Your task to perform on an android device: allow notifications from all sites in the chrome app Image 0: 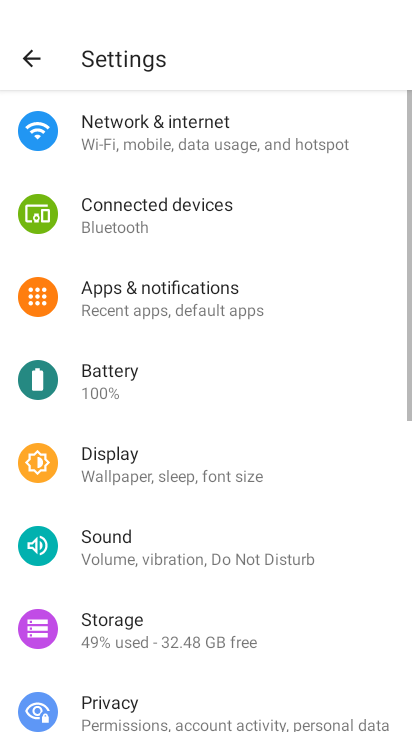
Step 0: press home button
Your task to perform on an android device: allow notifications from all sites in the chrome app Image 1: 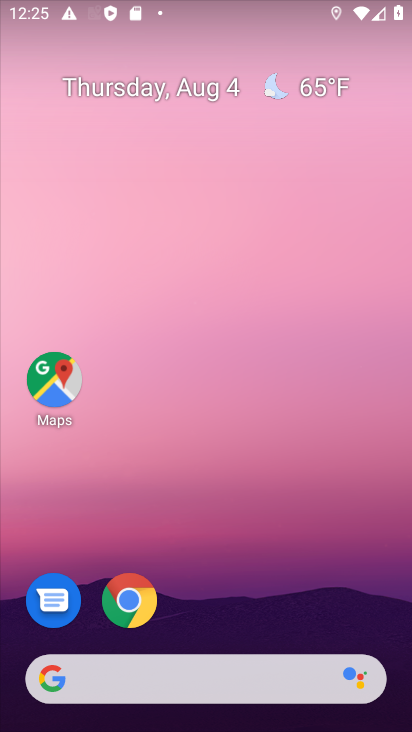
Step 1: drag from (271, 652) to (279, 256)
Your task to perform on an android device: allow notifications from all sites in the chrome app Image 2: 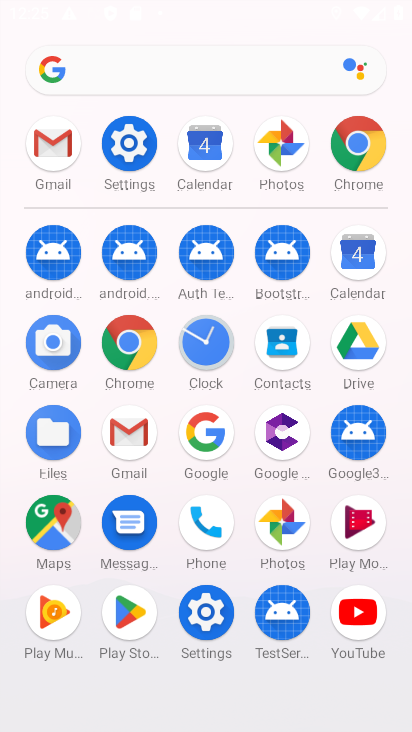
Step 2: click (122, 357)
Your task to perform on an android device: allow notifications from all sites in the chrome app Image 3: 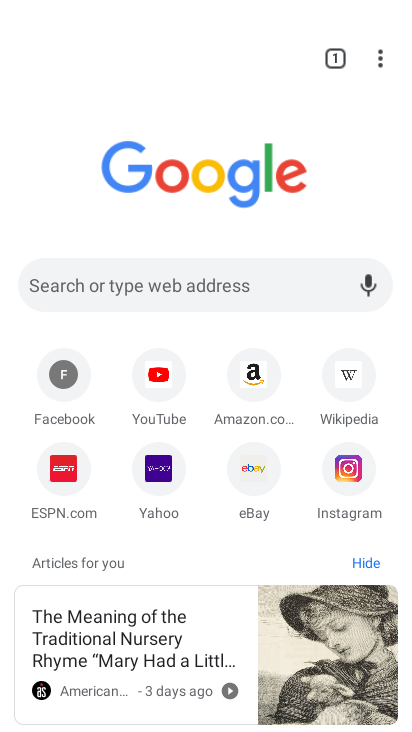
Step 3: click (385, 50)
Your task to perform on an android device: allow notifications from all sites in the chrome app Image 4: 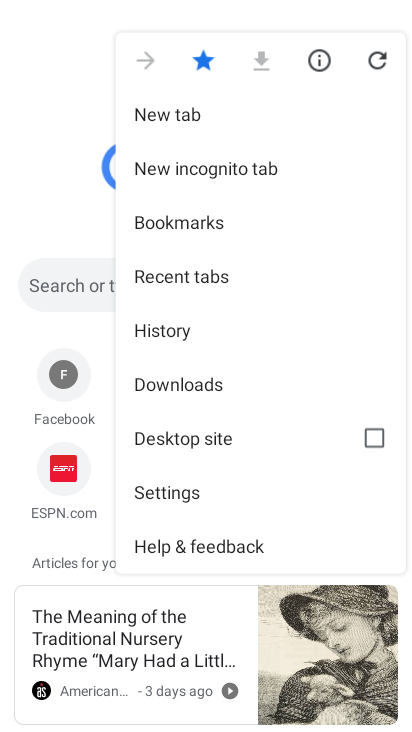
Step 4: click (172, 479)
Your task to perform on an android device: allow notifications from all sites in the chrome app Image 5: 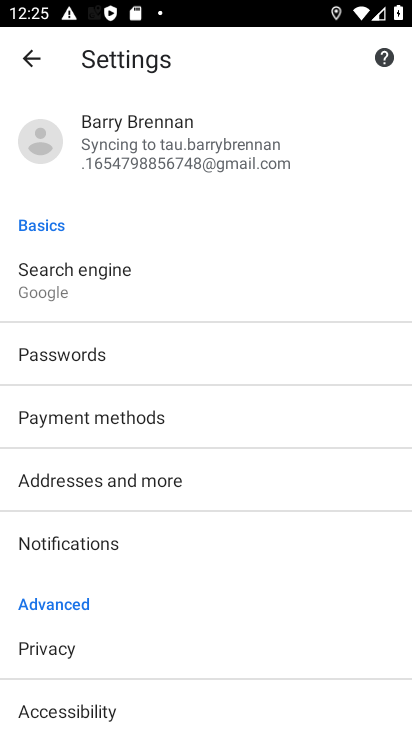
Step 5: drag from (197, 545) to (225, 58)
Your task to perform on an android device: allow notifications from all sites in the chrome app Image 6: 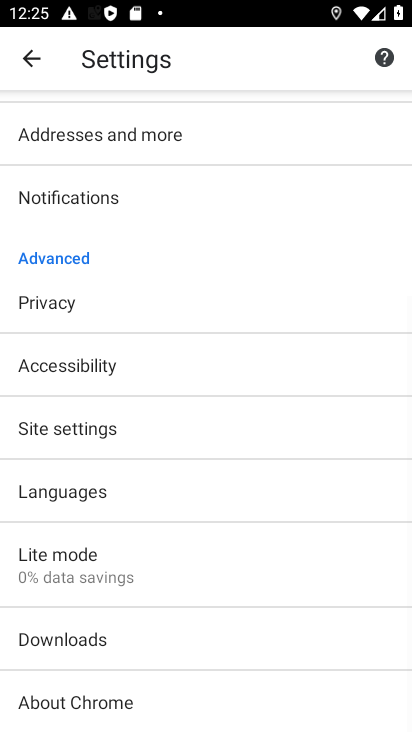
Step 6: drag from (169, 591) to (179, 41)
Your task to perform on an android device: allow notifications from all sites in the chrome app Image 7: 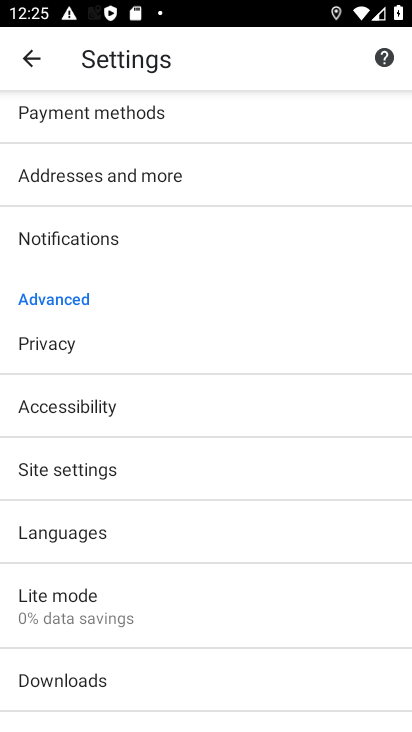
Step 7: click (53, 455)
Your task to perform on an android device: allow notifications from all sites in the chrome app Image 8: 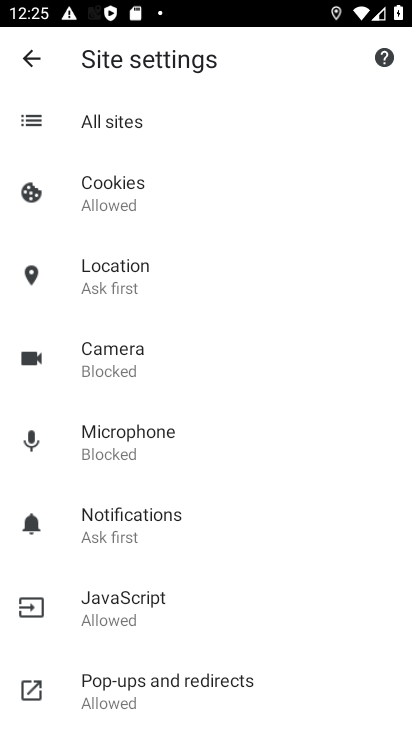
Step 8: click (130, 509)
Your task to perform on an android device: allow notifications from all sites in the chrome app Image 9: 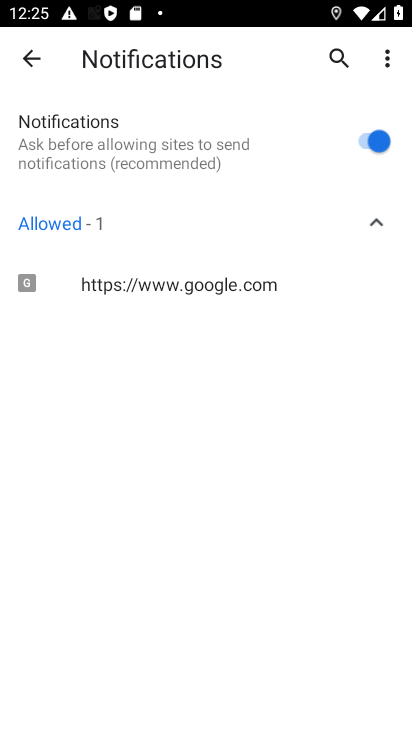
Step 9: task complete